Your task to perform on an android device: open a new tab in the chrome app Image 0: 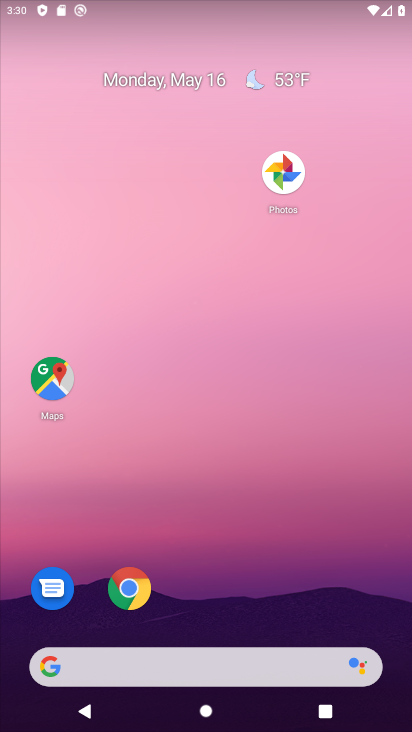
Step 0: click (131, 590)
Your task to perform on an android device: open a new tab in the chrome app Image 1: 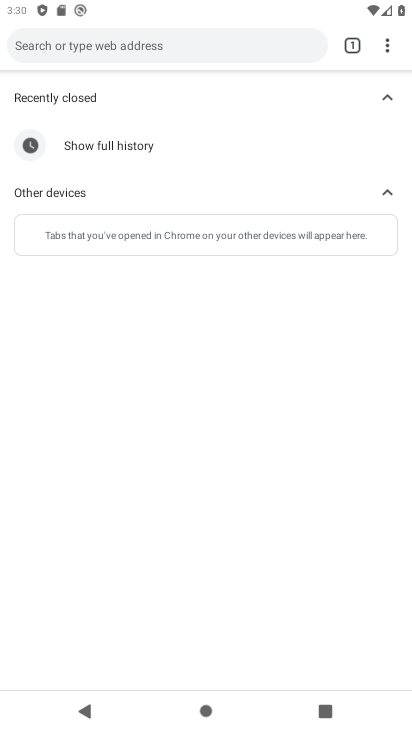
Step 1: click (351, 54)
Your task to perform on an android device: open a new tab in the chrome app Image 2: 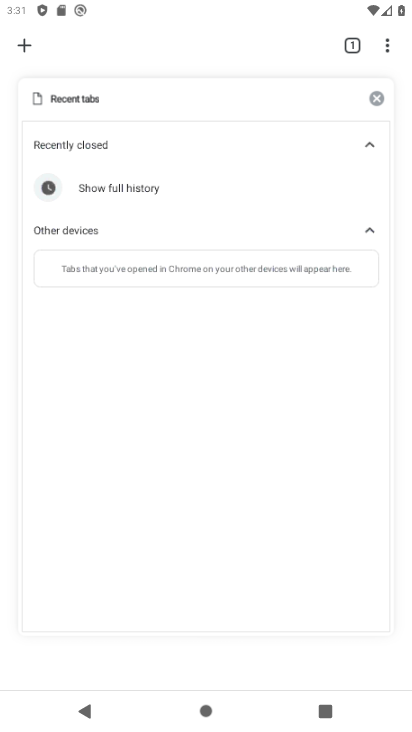
Step 2: click (18, 54)
Your task to perform on an android device: open a new tab in the chrome app Image 3: 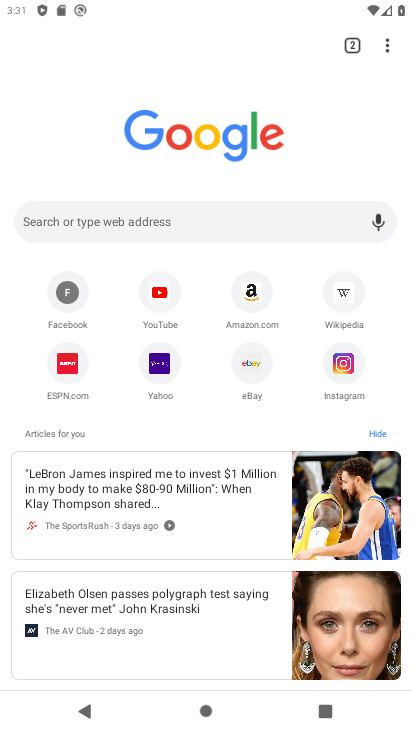
Step 3: task complete